Your task to perform on an android device: turn off sleep mode Image 0: 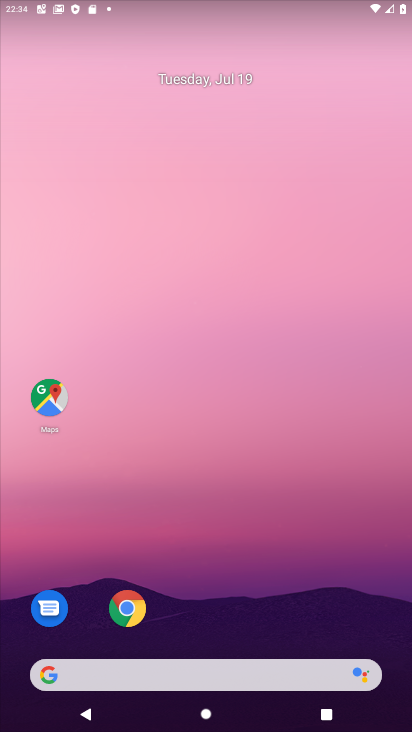
Step 0: drag from (322, 598) to (242, 90)
Your task to perform on an android device: turn off sleep mode Image 1: 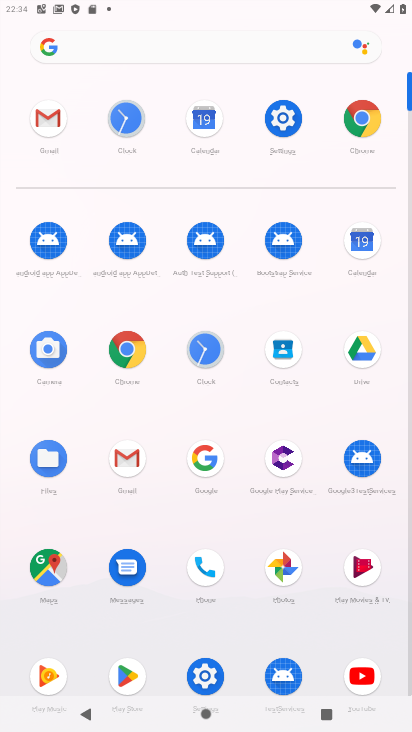
Step 1: click (290, 99)
Your task to perform on an android device: turn off sleep mode Image 2: 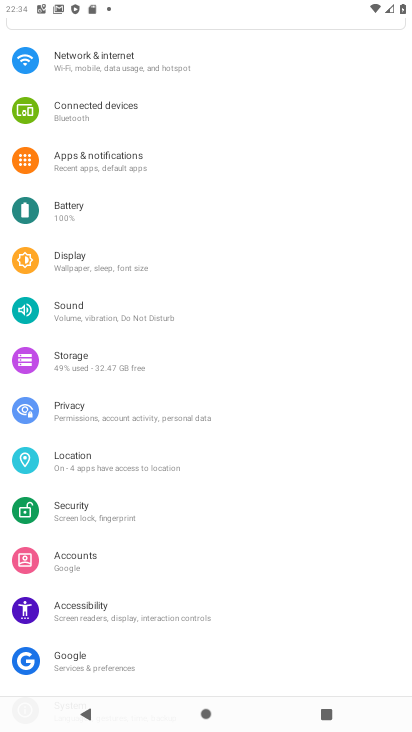
Step 2: drag from (241, 141) to (245, 508)
Your task to perform on an android device: turn off sleep mode Image 3: 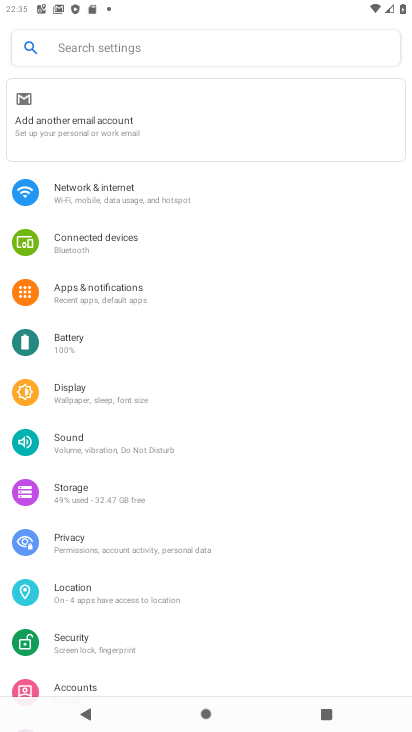
Step 3: click (83, 395)
Your task to perform on an android device: turn off sleep mode Image 4: 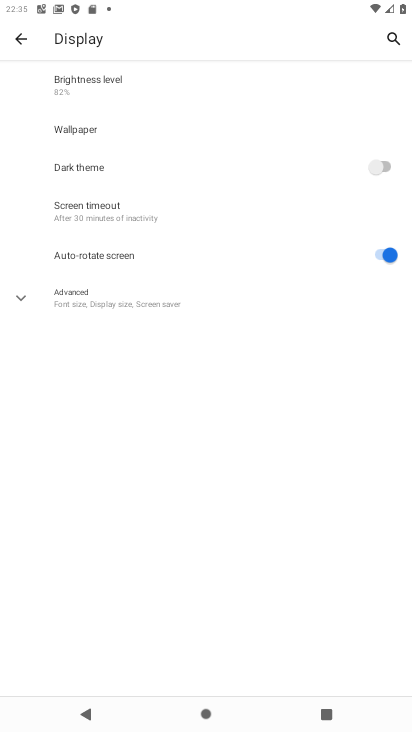
Step 4: click (105, 202)
Your task to perform on an android device: turn off sleep mode Image 5: 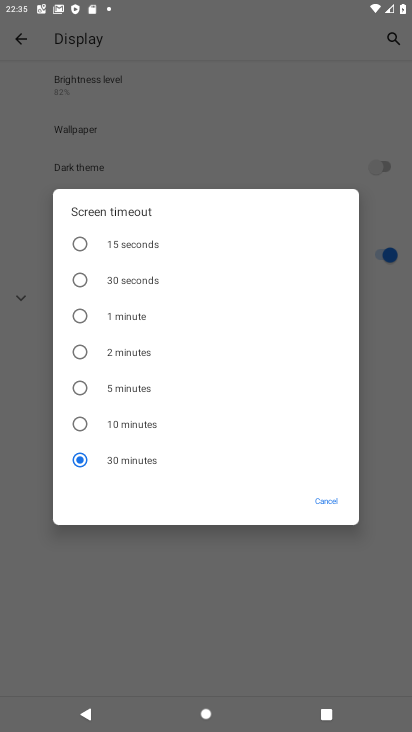
Step 5: task complete